Your task to perform on an android device: Open eBay Image 0: 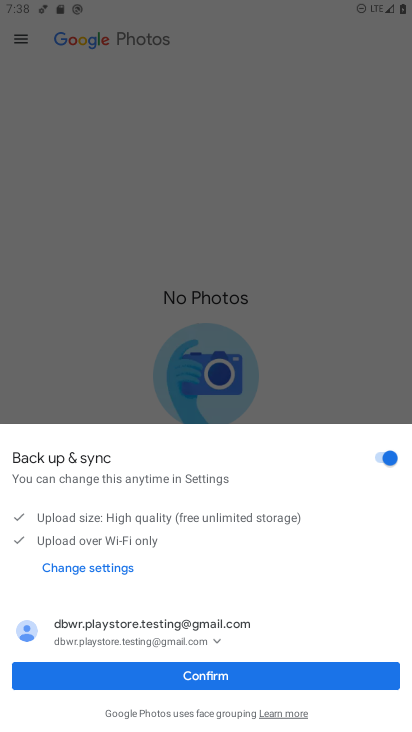
Step 0: press home button
Your task to perform on an android device: Open eBay Image 1: 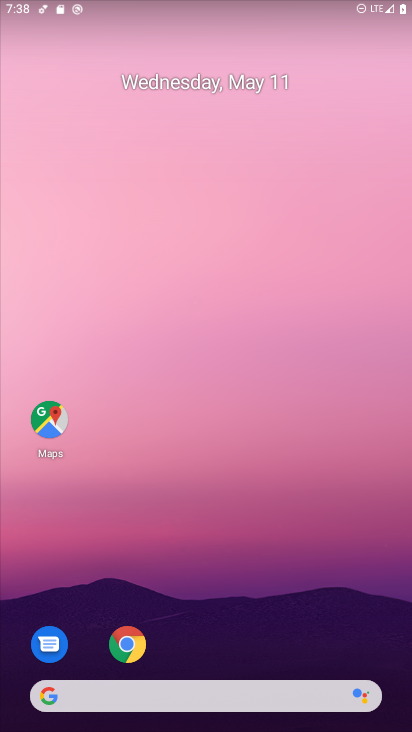
Step 1: click (132, 649)
Your task to perform on an android device: Open eBay Image 2: 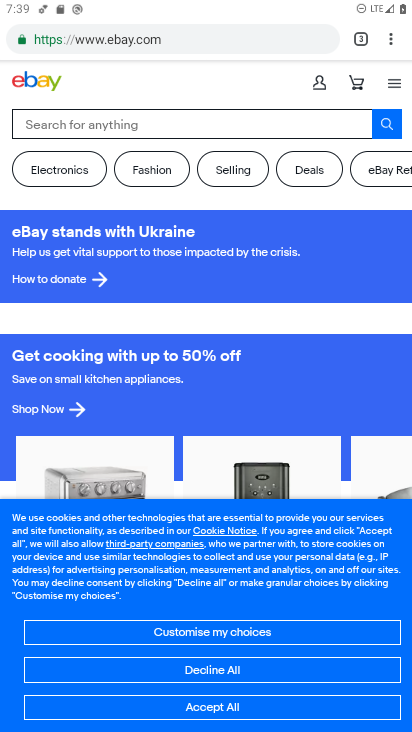
Step 2: task complete